Your task to perform on an android device: Open network settings Image 0: 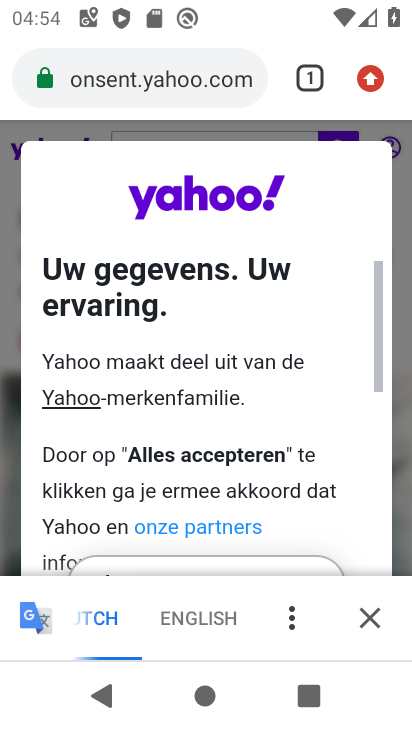
Step 0: press home button
Your task to perform on an android device: Open network settings Image 1: 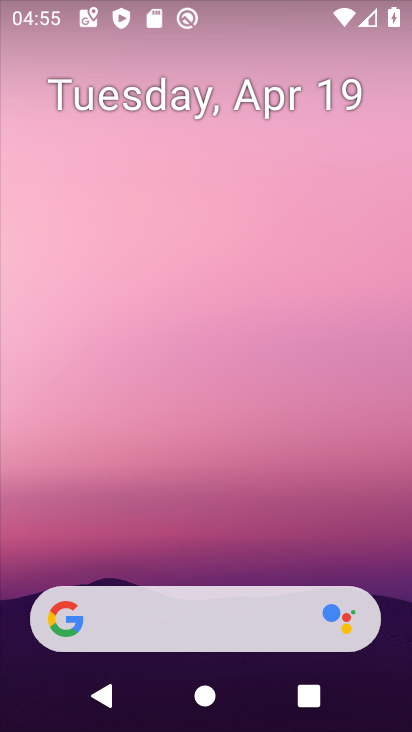
Step 1: drag from (161, 468) to (232, 74)
Your task to perform on an android device: Open network settings Image 2: 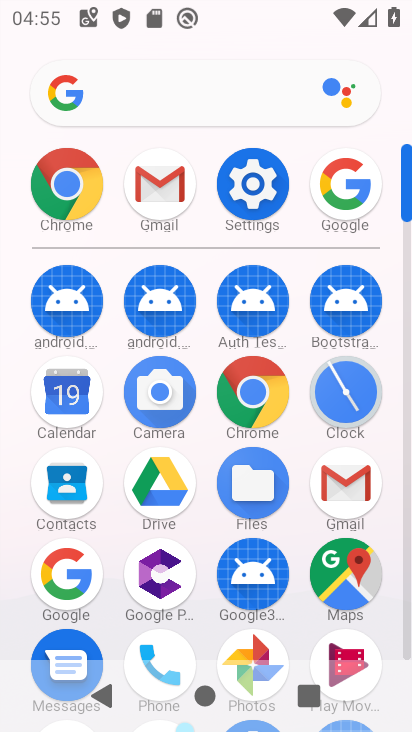
Step 2: click (252, 186)
Your task to perform on an android device: Open network settings Image 3: 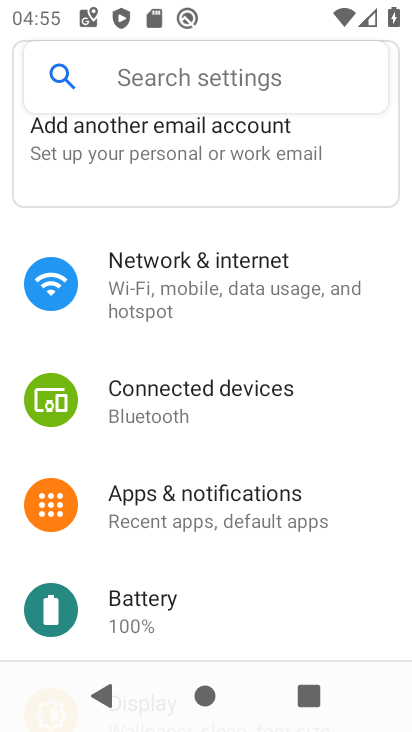
Step 3: drag from (234, 353) to (247, 255)
Your task to perform on an android device: Open network settings Image 4: 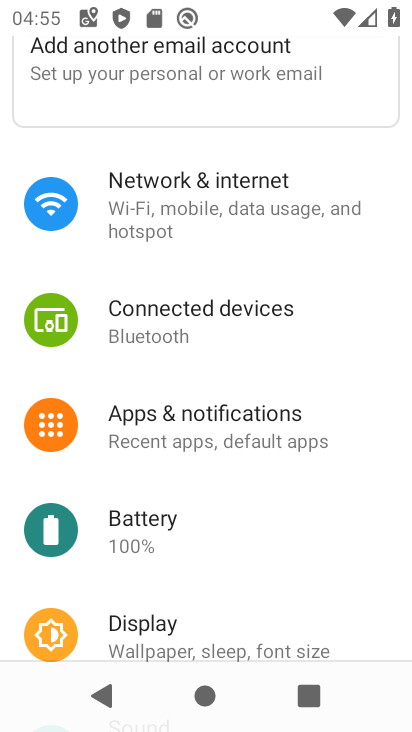
Step 4: click (199, 176)
Your task to perform on an android device: Open network settings Image 5: 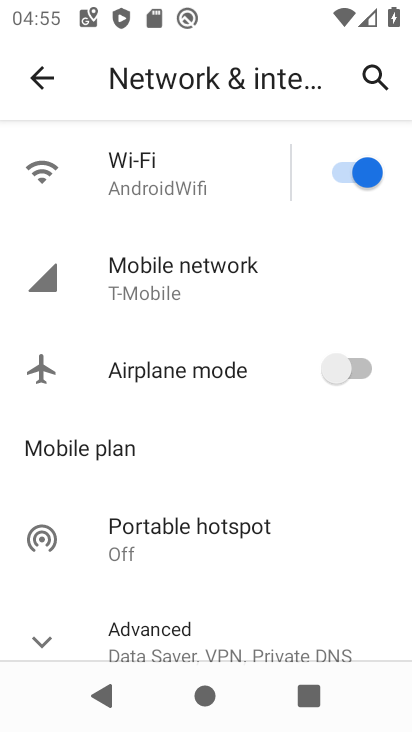
Step 5: click (192, 273)
Your task to perform on an android device: Open network settings Image 6: 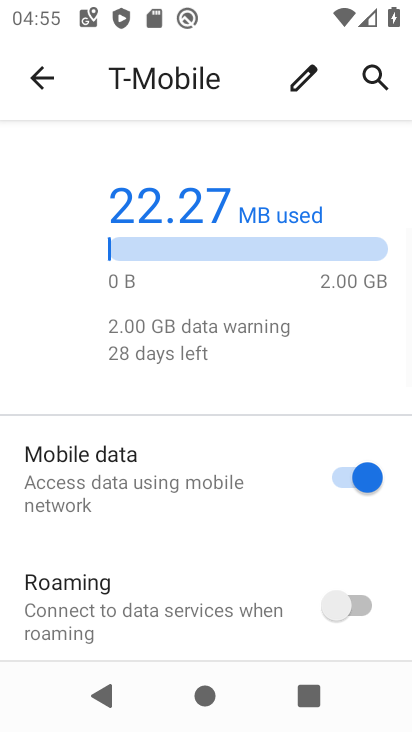
Step 6: task complete